Your task to perform on an android device: change your default location settings in chrome Image 0: 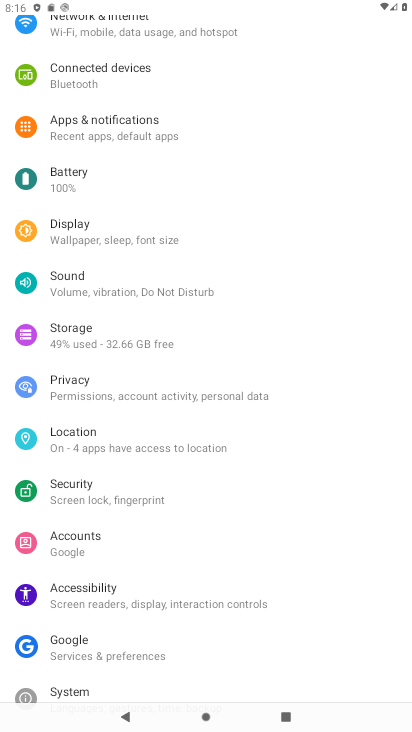
Step 0: press home button
Your task to perform on an android device: change your default location settings in chrome Image 1: 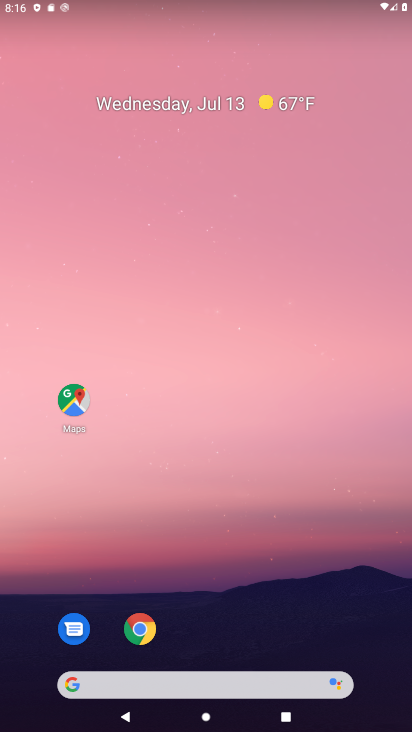
Step 1: drag from (248, 553) to (259, 1)
Your task to perform on an android device: change your default location settings in chrome Image 2: 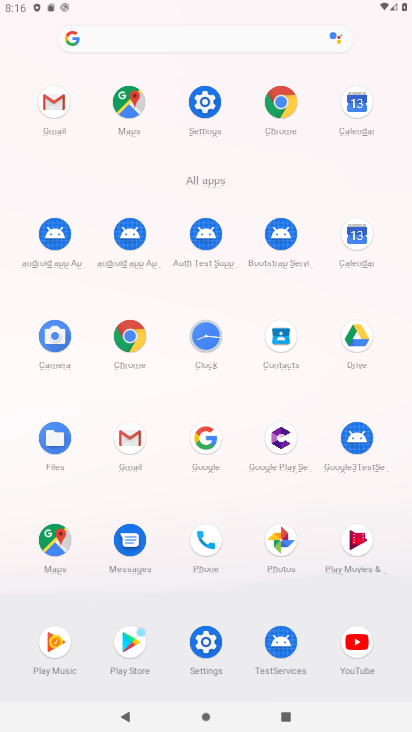
Step 2: click (135, 330)
Your task to perform on an android device: change your default location settings in chrome Image 3: 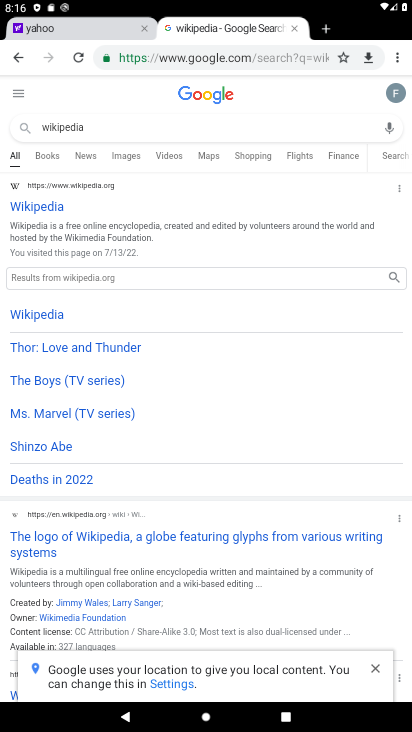
Step 3: click (397, 56)
Your task to perform on an android device: change your default location settings in chrome Image 4: 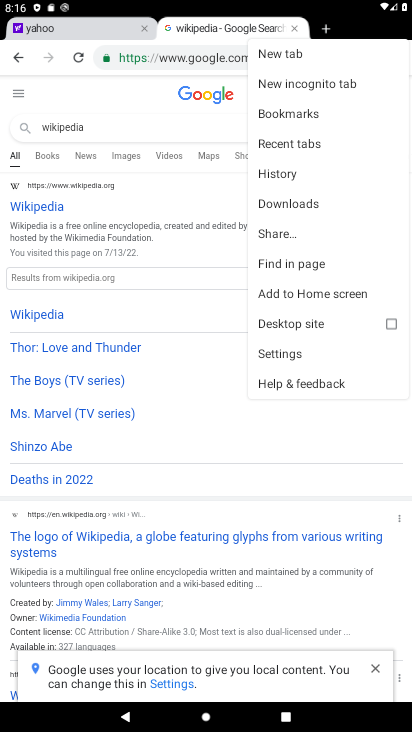
Step 4: click (284, 356)
Your task to perform on an android device: change your default location settings in chrome Image 5: 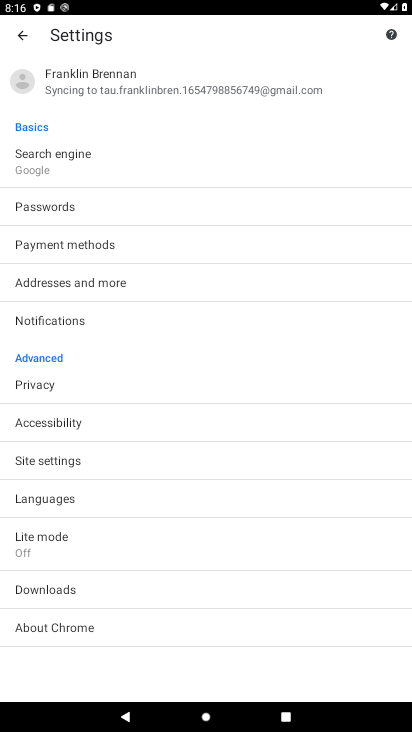
Step 5: click (72, 457)
Your task to perform on an android device: change your default location settings in chrome Image 6: 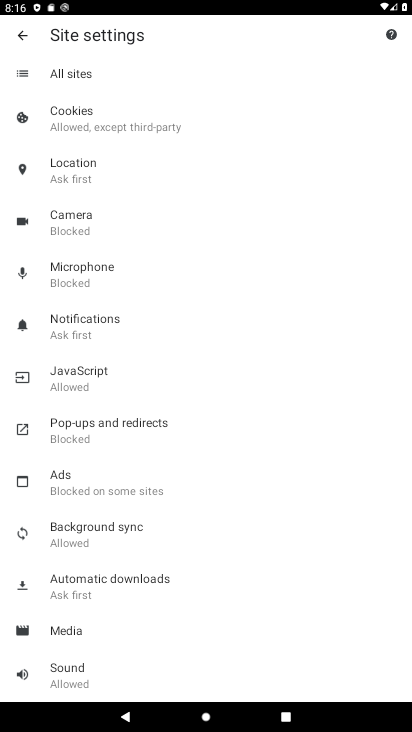
Step 6: click (103, 168)
Your task to perform on an android device: change your default location settings in chrome Image 7: 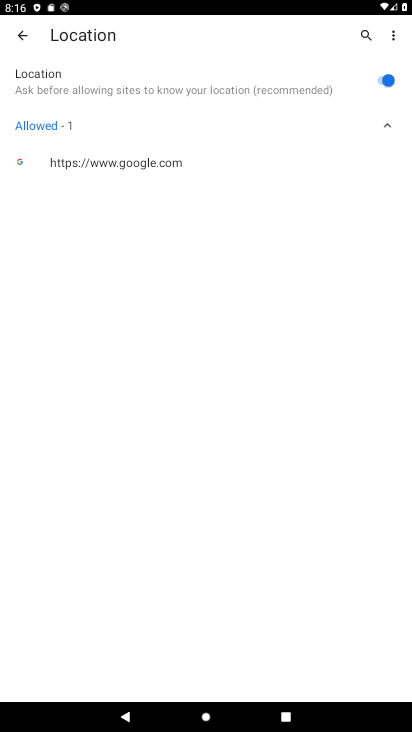
Step 7: click (372, 77)
Your task to perform on an android device: change your default location settings in chrome Image 8: 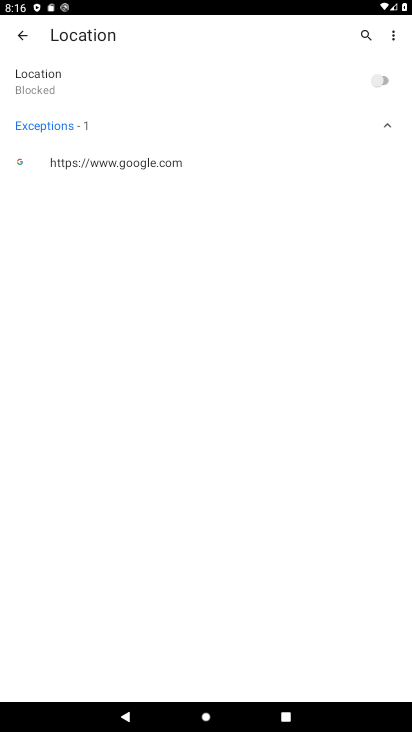
Step 8: task complete